Your task to perform on an android device: Go to Maps Image 0: 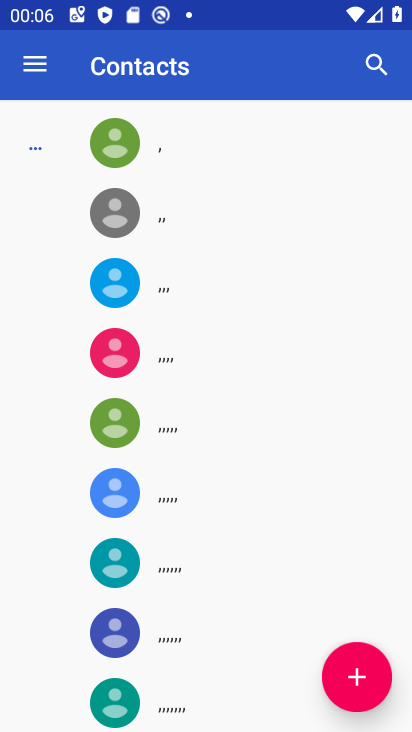
Step 0: press home button
Your task to perform on an android device: Go to Maps Image 1: 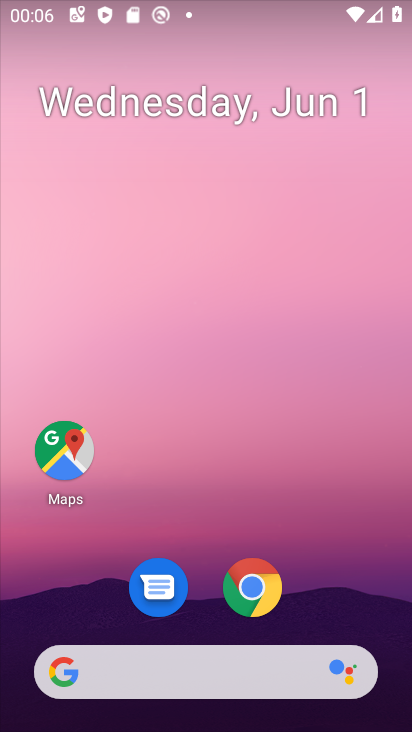
Step 1: click (61, 451)
Your task to perform on an android device: Go to Maps Image 2: 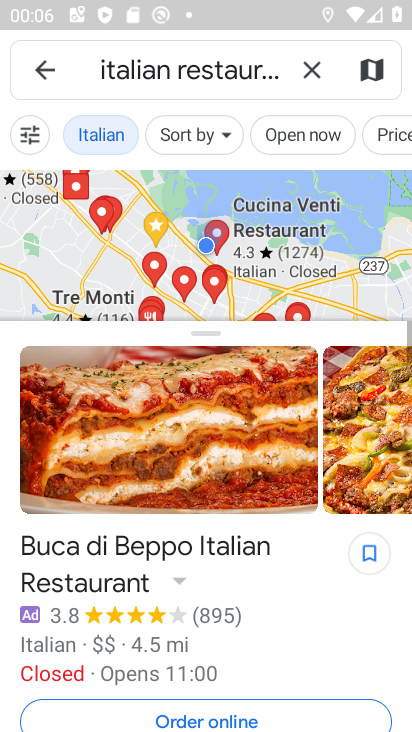
Step 2: click (308, 72)
Your task to perform on an android device: Go to Maps Image 3: 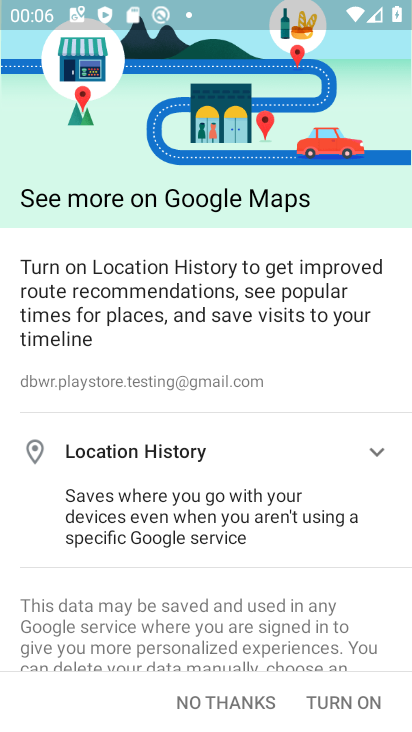
Step 3: click (212, 701)
Your task to perform on an android device: Go to Maps Image 4: 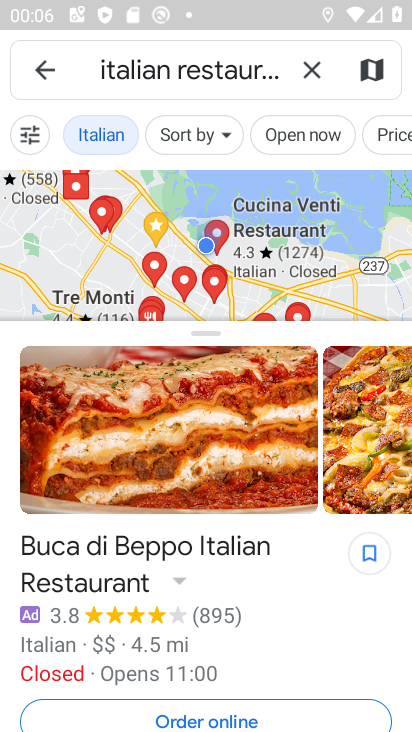
Step 4: click (50, 63)
Your task to perform on an android device: Go to Maps Image 5: 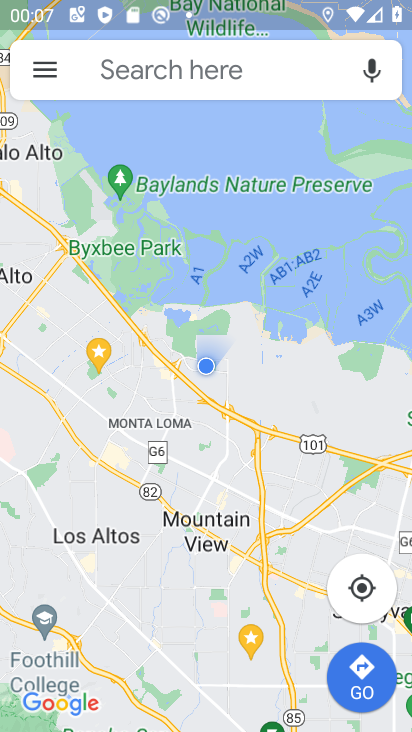
Step 5: task complete